Your task to perform on an android device: toggle improve location accuracy Image 0: 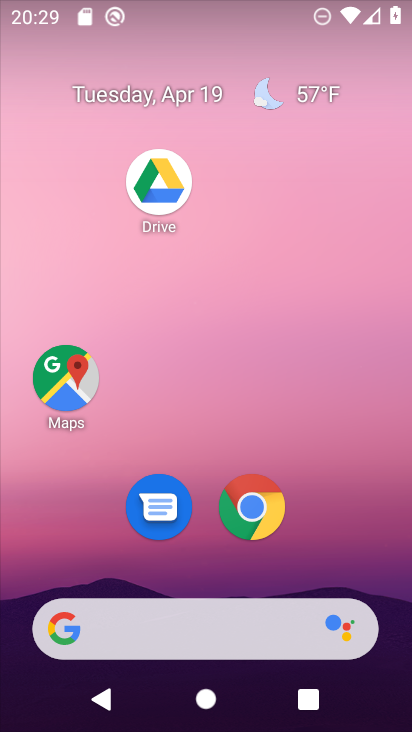
Step 0: drag from (328, 504) to (345, 110)
Your task to perform on an android device: toggle improve location accuracy Image 1: 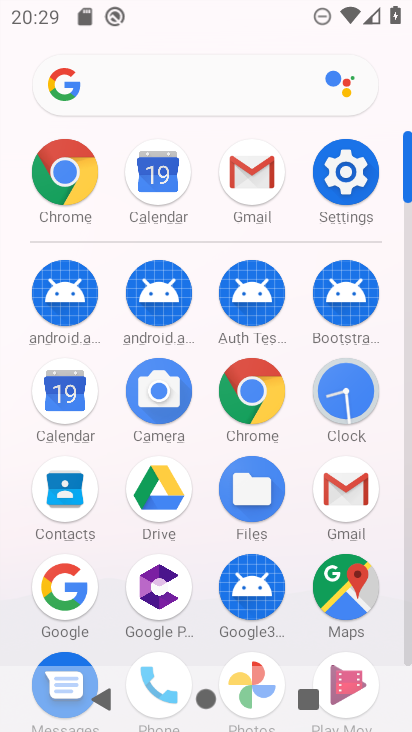
Step 1: click (349, 181)
Your task to perform on an android device: toggle improve location accuracy Image 2: 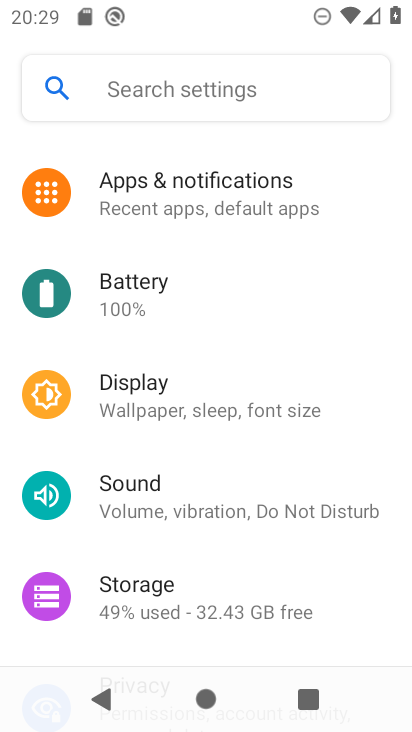
Step 2: drag from (260, 459) to (266, 190)
Your task to perform on an android device: toggle improve location accuracy Image 3: 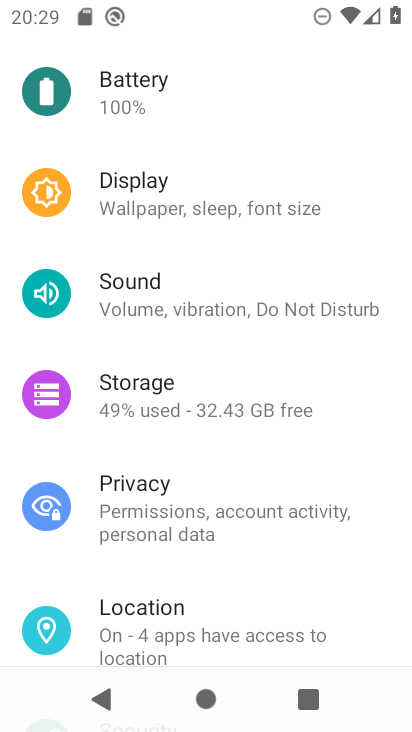
Step 3: click (228, 614)
Your task to perform on an android device: toggle improve location accuracy Image 4: 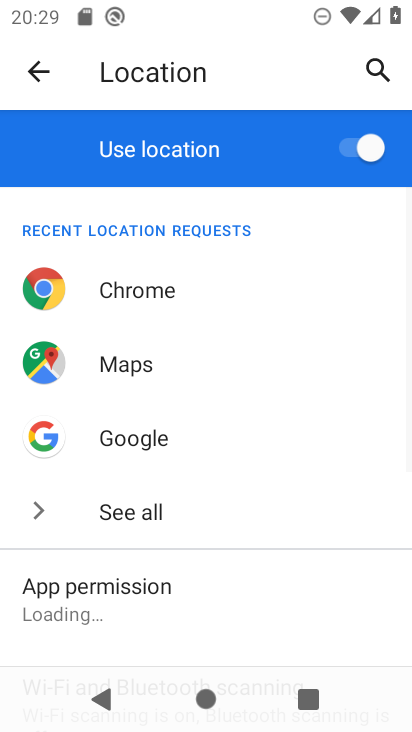
Step 4: drag from (284, 556) to (305, 227)
Your task to perform on an android device: toggle improve location accuracy Image 5: 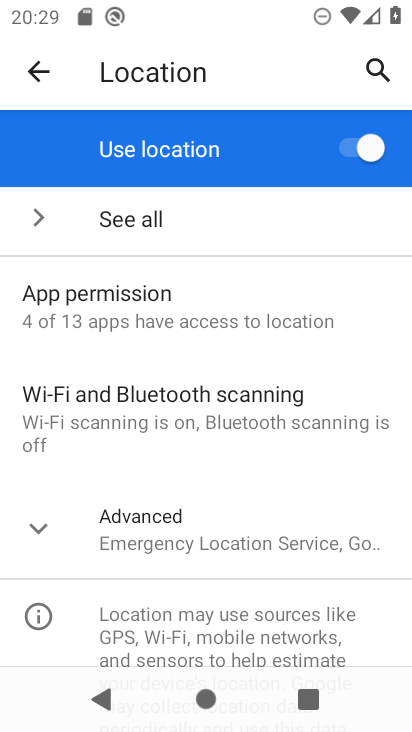
Step 5: click (30, 522)
Your task to perform on an android device: toggle improve location accuracy Image 6: 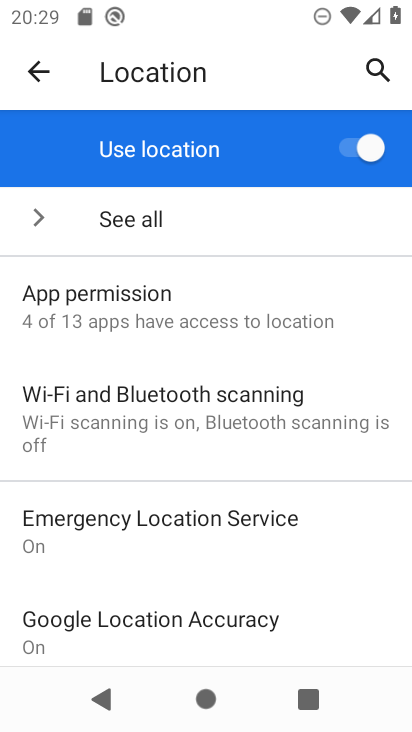
Step 6: drag from (207, 607) to (147, 318)
Your task to perform on an android device: toggle improve location accuracy Image 7: 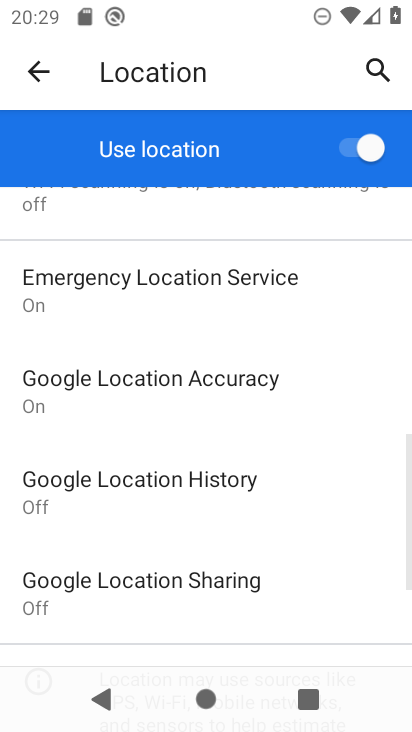
Step 7: click (156, 386)
Your task to perform on an android device: toggle improve location accuracy Image 8: 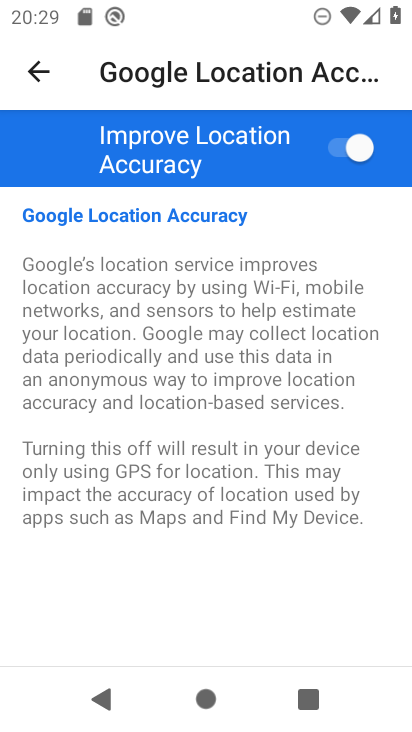
Step 8: click (333, 150)
Your task to perform on an android device: toggle improve location accuracy Image 9: 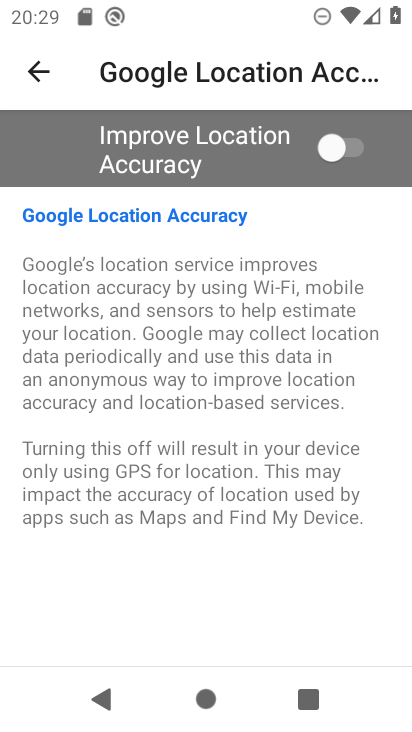
Step 9: task complete